Your task to perform on an android device: delete location history Image 0: 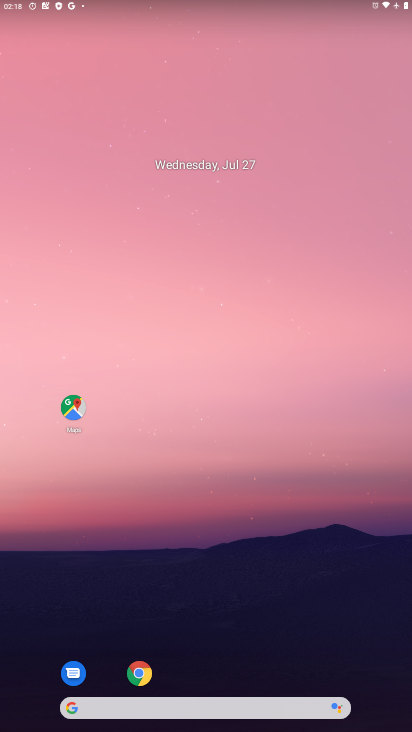
Step 0: click (77, 401)
Your task to perform on an android device: delete location history Image 1: 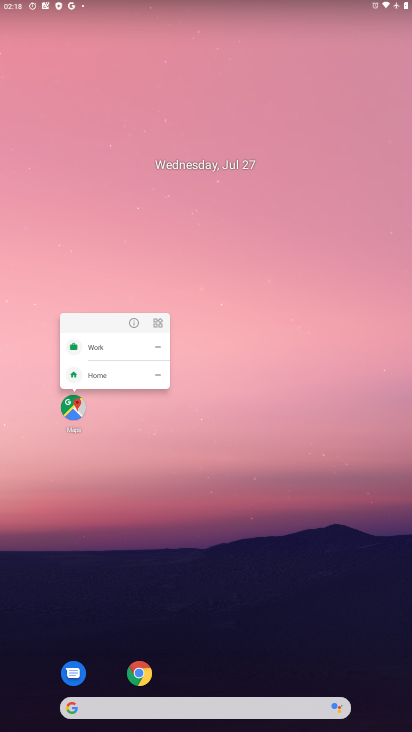
Step 1: click (77, 407)
Your task to perform on an android device: delete location history Image 2: 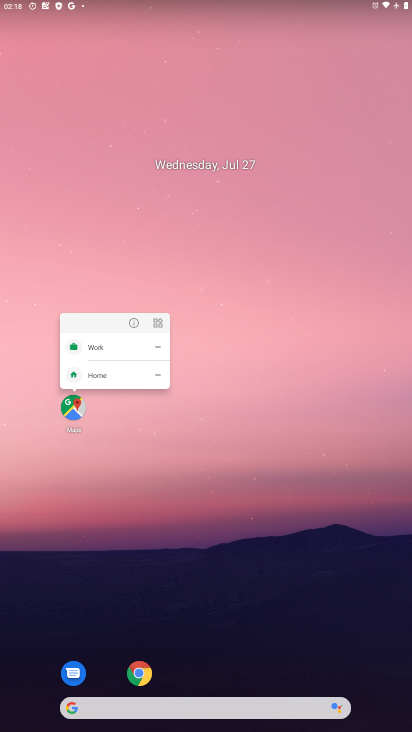
Step 2: click (75, 405)
Your task to perform on an android device: delete location history Image 3: 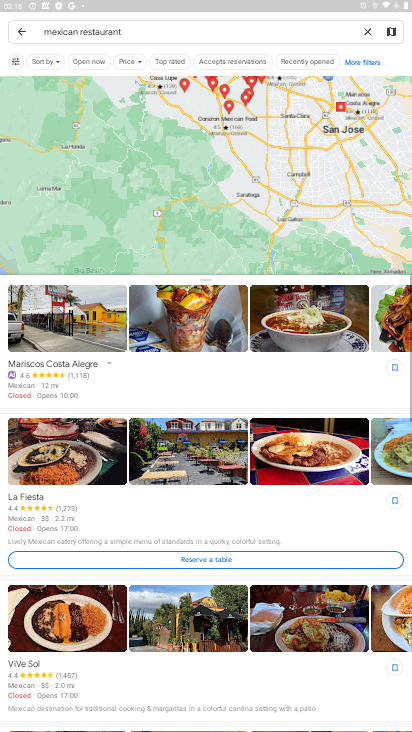
Step 3: click (369, 29)
Your task to perform on an android device: delete location history Image 4: 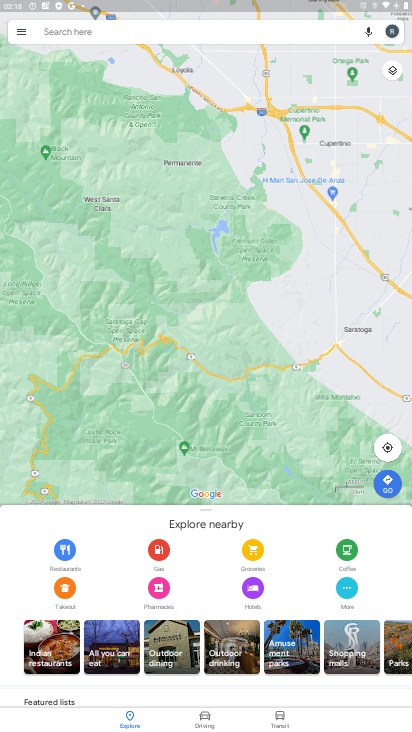
Step 4: click (21, 31)
Your task to perform on an android device: delete location history Image 5: 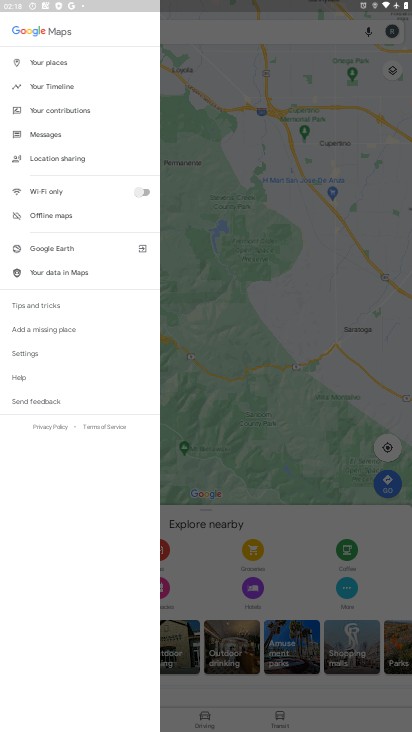
Step 5: click (32, 87)
Your task to perform on an android device: delete location history Image 6: 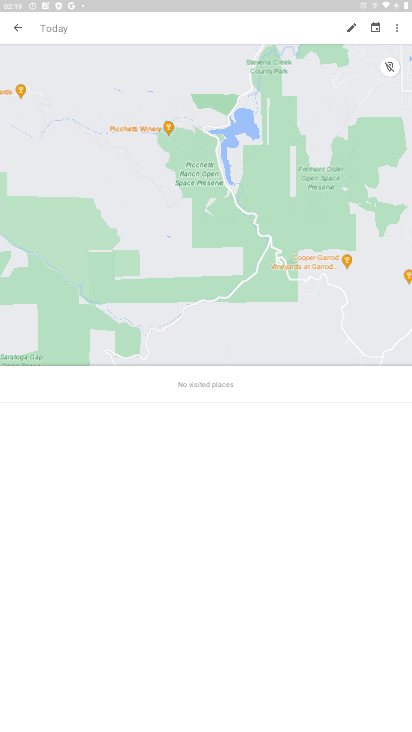
Step 6: click (396, 29)
Your task to perform on an android device: delete location history Image 7: 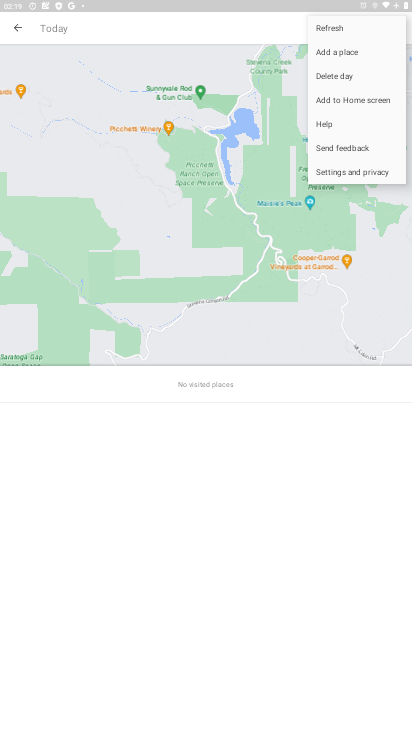
Step 7: click (345, 168)
Your task to perform on an android device: delete location history Image 8: 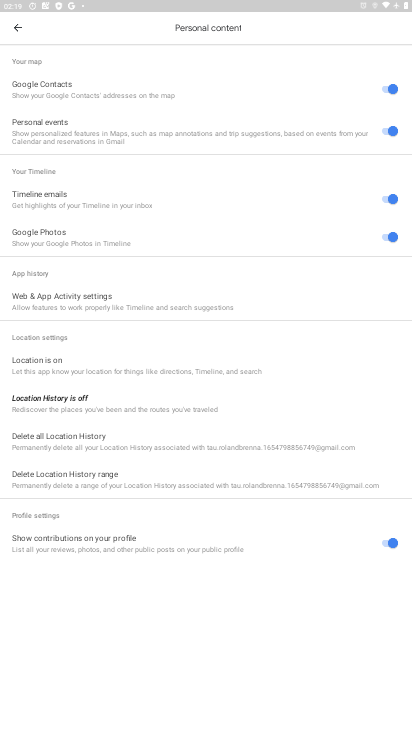
Step 8: click (65, 436)
Your task to perform on an android device: delete location history Image 9: 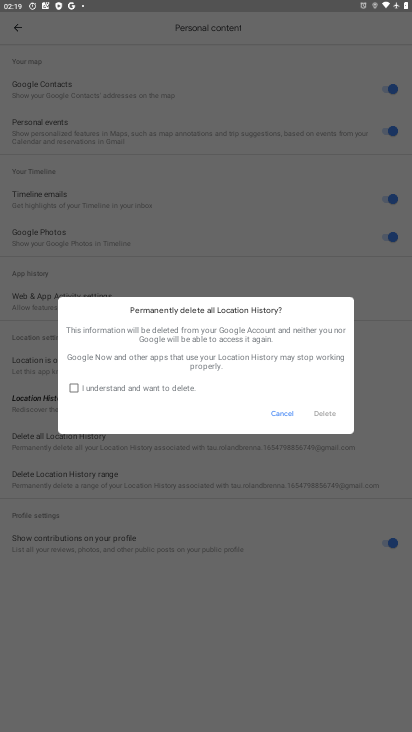
Step 9: click (75, 389)
Your task to perform on an android device: delete location history Image 10: 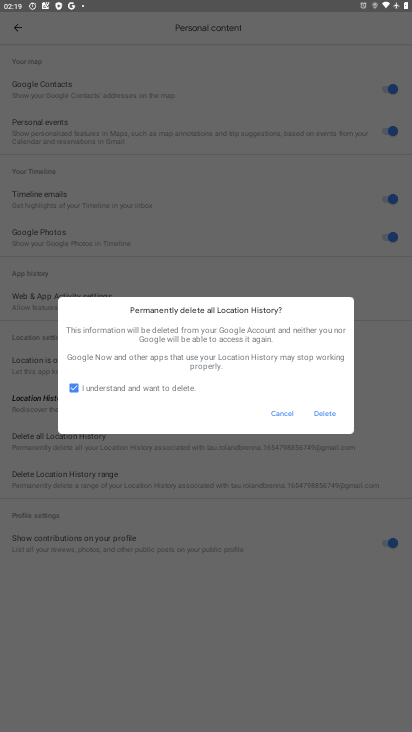
Step 10: click (324, 414)
Your task to perform on an android device: delete location history Image 11: 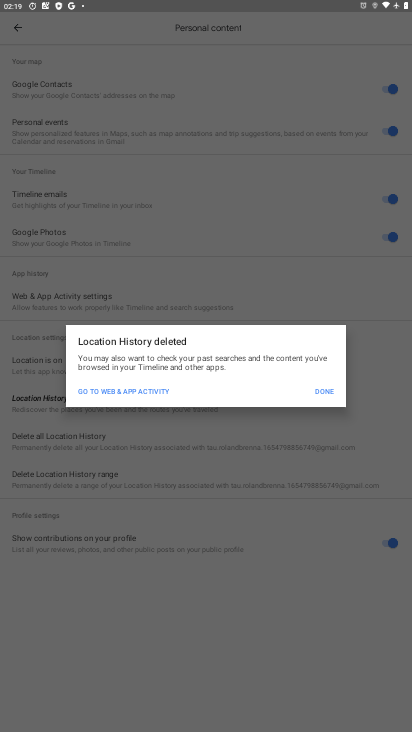
Step 11: click (330, 394)
Your task to perform on an android device: delete location history Image 12: 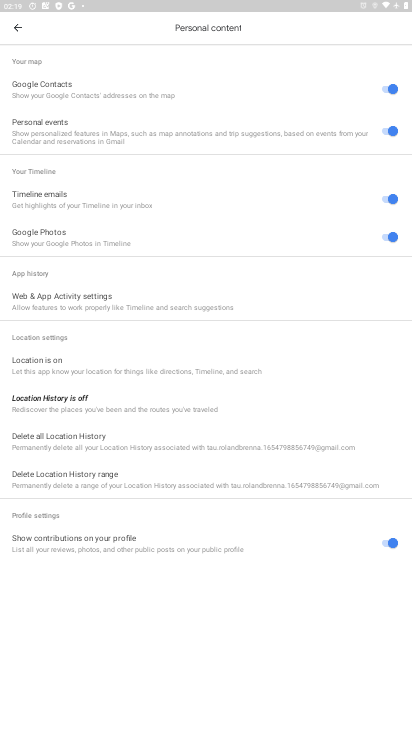
Step 12: task complete